Your task to perform on an android device: Go to Android settings Image 0: 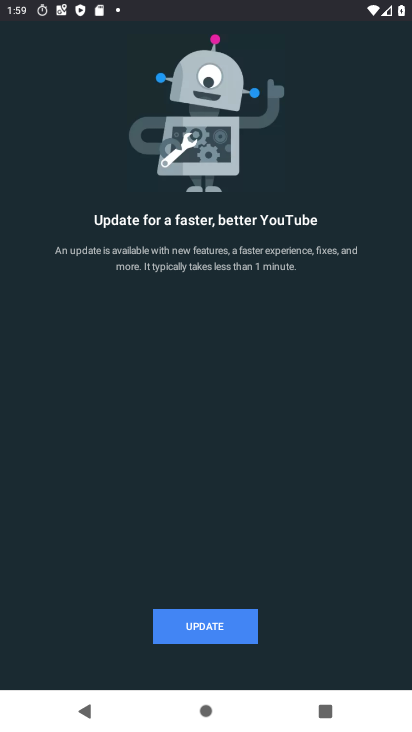
Step 0: press home button
Your task to perform on an android device: Go to Android settings Image 1: 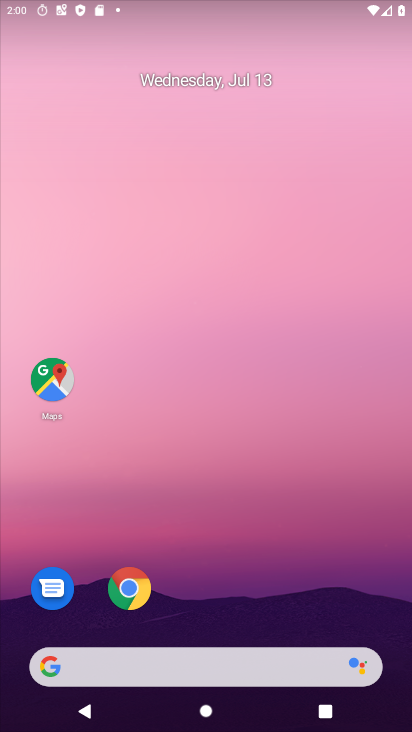
Step 1: drag from (228, 661) to (297, 267)
Your task to perform on an android device: Go to Android settings Image 2: 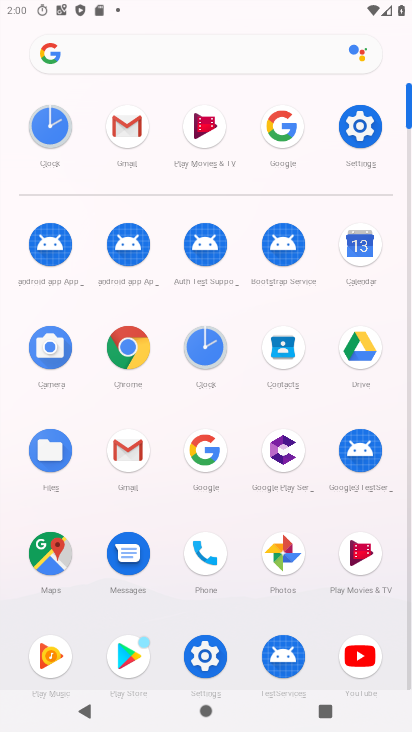
Step 2: click (351, 133)
Your task to perform on an android device: Go to Android settings Image 3: 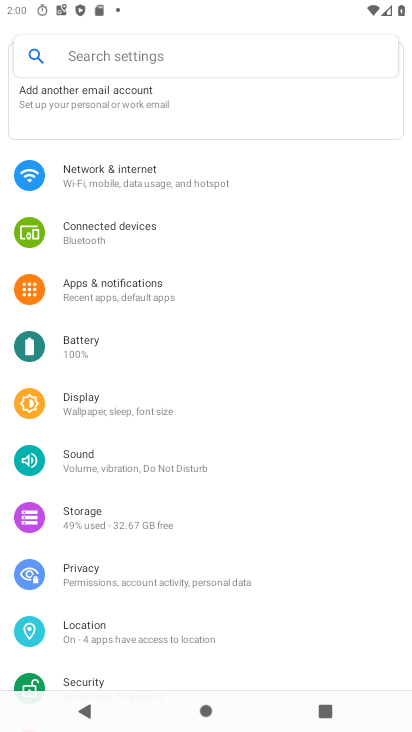
Step 3: task complete